Your task to perform on an android device: Search for Mexican restaurants on Maps Image 0: 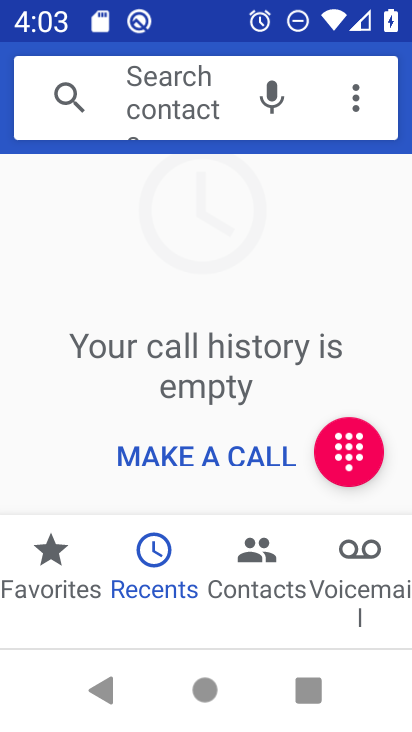
Step 0: press home button
Your task to perform on an android device: Search for Mexican restaurants on Maps Image 1: 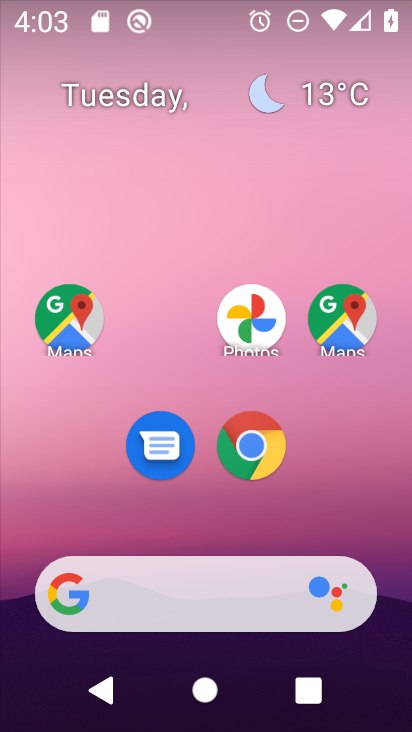
Step 1: drag from (387, 548) to (398, 268)
Your task to perform on an android device: Search for Mexican restaurants on Maps Image 2: 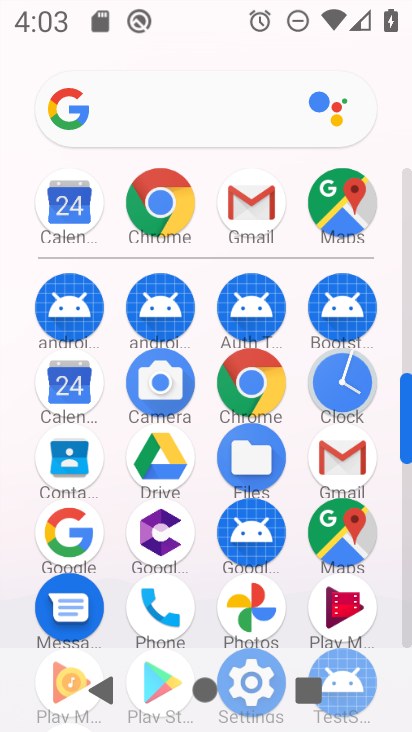
Step 2: drag from (391, 588) to (382, 385)
Your task to perform on an android device: Search for Mexican restaurants on Maps Image 3: 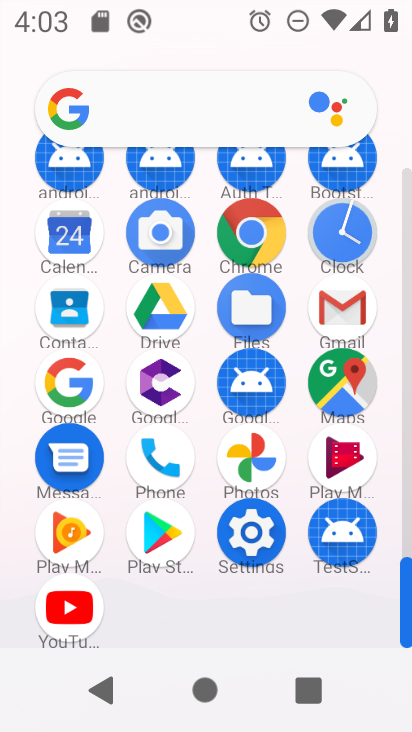
Step 3: click (355, 397)
Your task to perform on an android device: Search for Mexican restaurants on Maps Image 4: 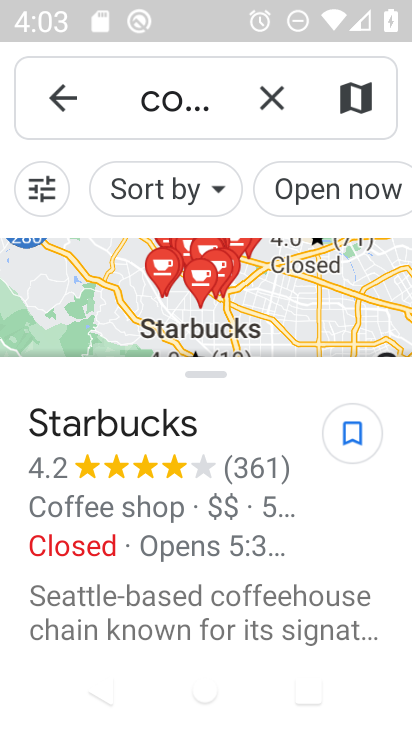
Step 4: click (249, 96)
Your task to perform on an android device: Search for Mexican restaurants on Maps Image 5: 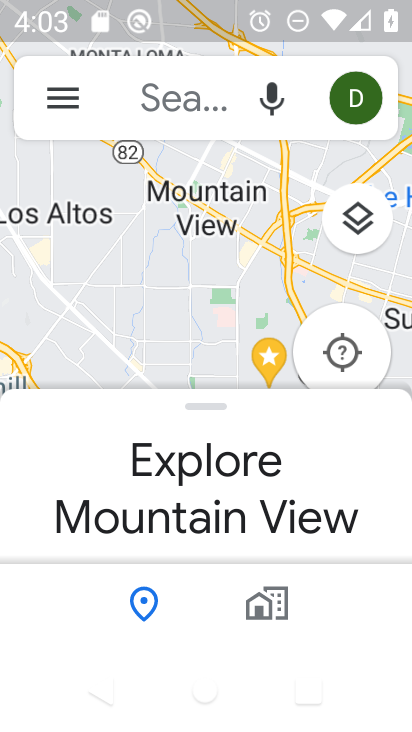
Step 5: click (199, 98)
Your task to perform on an android device: Search for Mexican restaurants on Maps Image 6: 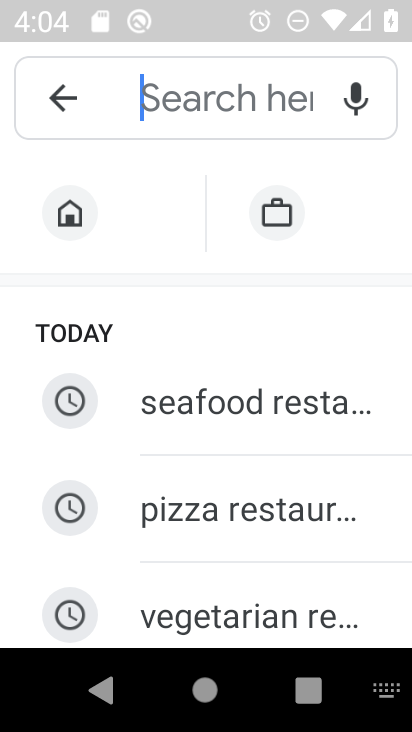
Step 6: type "mexcian restaurants"
Your task to perform on an android device: Search for Mexican restaurants on Maps Image 7: 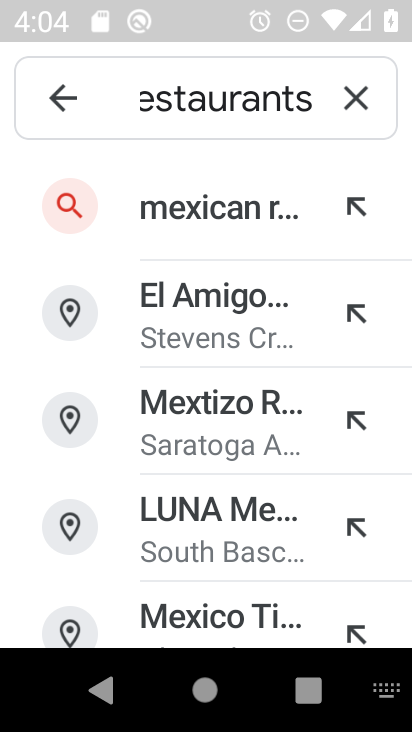
Step 7: click (287, 225)
Your task to perform on an android device: Search for Mexican restaurants on Maps Image 8: 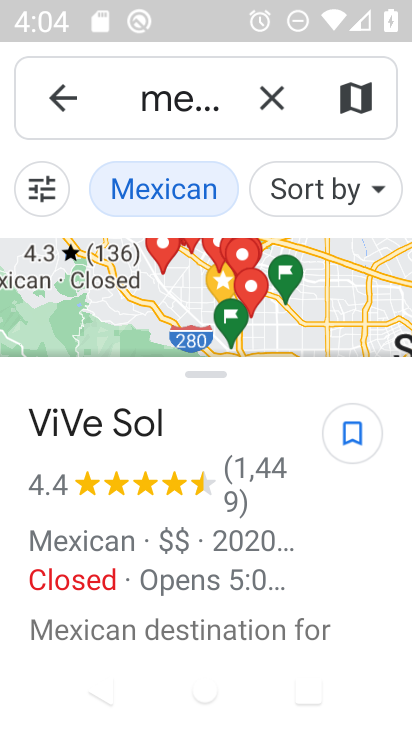
Step 8: task complete